Your task to perform on an android device: Open the calendar app, open the side menu, and click the "Day" option Image 0: 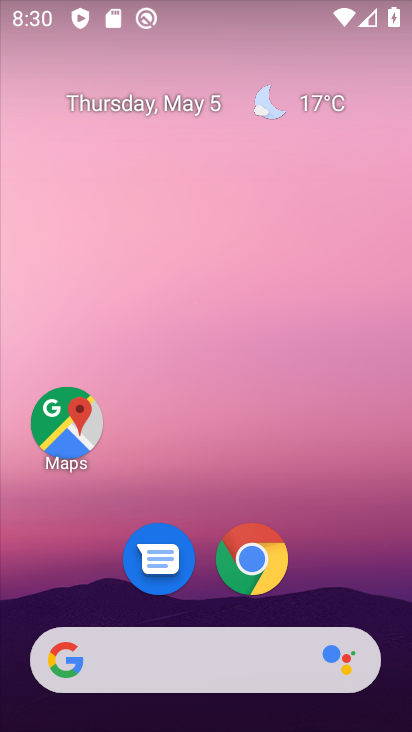
Step 0: drag from (182, 591) to (267, 93)
Your task to perform on an android device: Open the calendar app, open the side menu, and click the "Day" option Image 1: 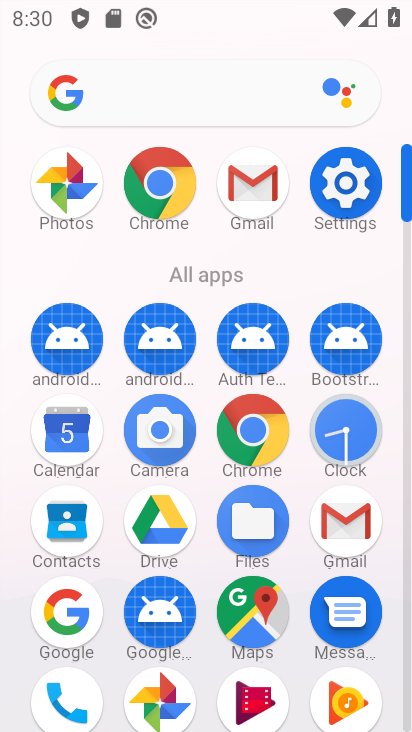
Step 1: click (73, 443)
Your task to perform on an android device: Open the calendar app, open the side menu, and click the "Day" option Image 2: 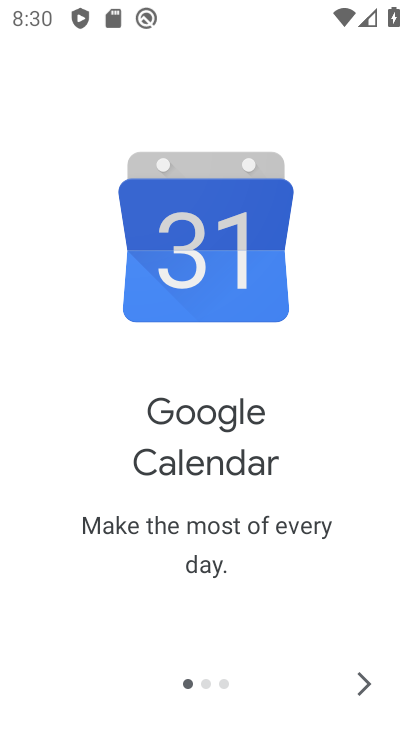
Step 2: click (370, 673)
Your task to perform on an android device: Open the calendar app, open the side menu, and click the "Day" option Image 3: 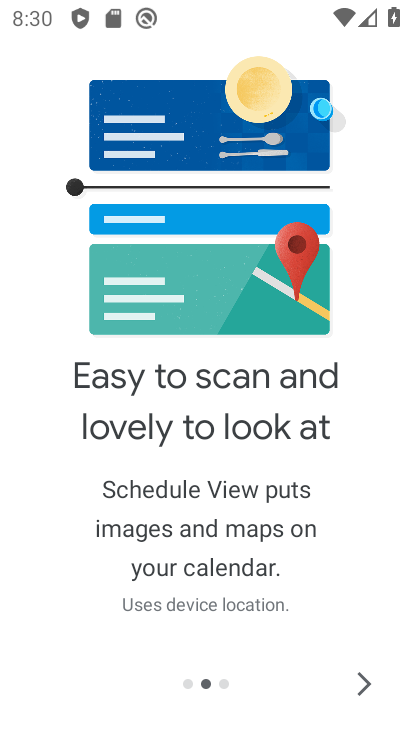
Step 3: click (366, 682)
Your task to perform on an android device: Open the calendar app, open the side menu, and click the "Day" option Image 4: 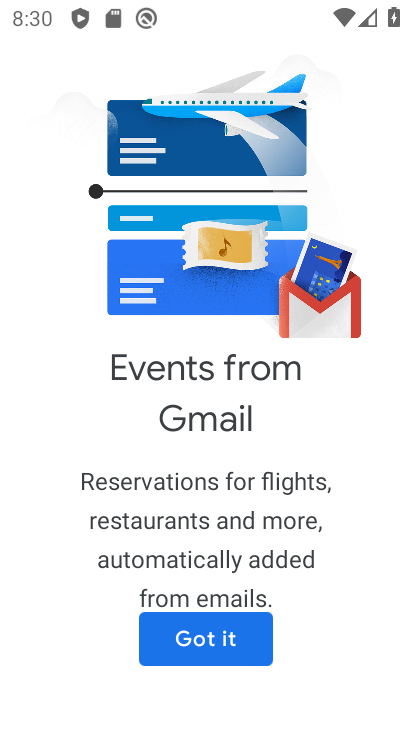
Step 4: click (196, 635)
Your task to perform on an android device: Open the calendar app, open the side menu, and click the "Day" option Image 5: 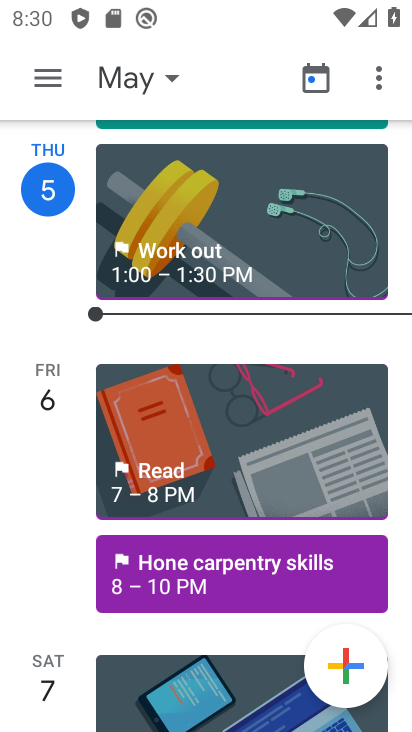
Step 5: click (48, 70)
Your task to perform on an android device: Open the calendar app, open the side menu, and click the "Day" option Image 6: 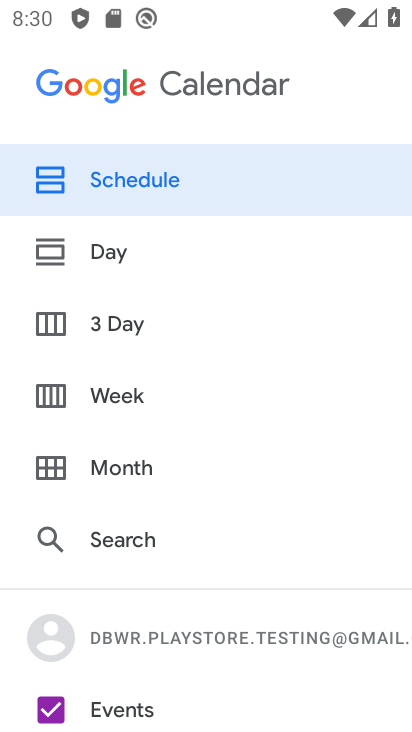
Step 6: click (95, 245)
Your task to perform on an android device: Open the calendar app, open the side menu, and click the "Day" option Image 7: 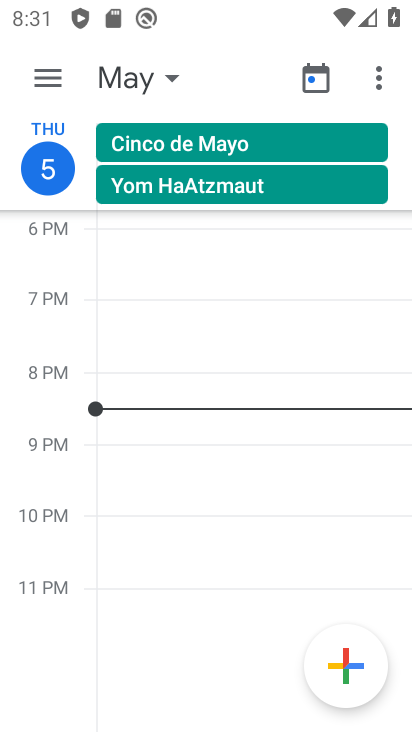
Step 7: task complete